Your task to perform on an android device: Go to wifi settings Image 0: 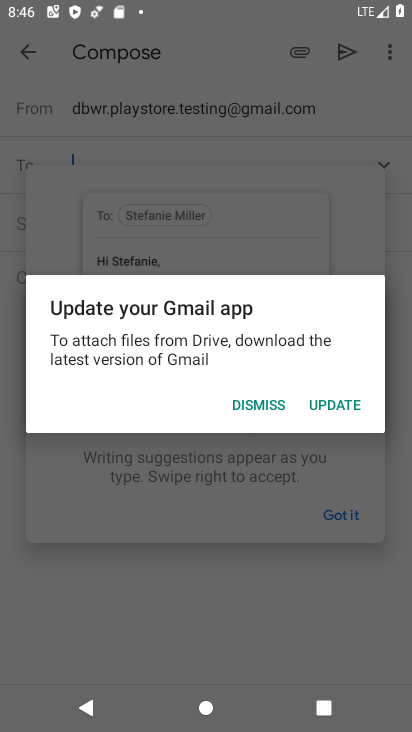
Step 0: press home button
Your task to perform on an android device: Go to wifi settings Image 1: 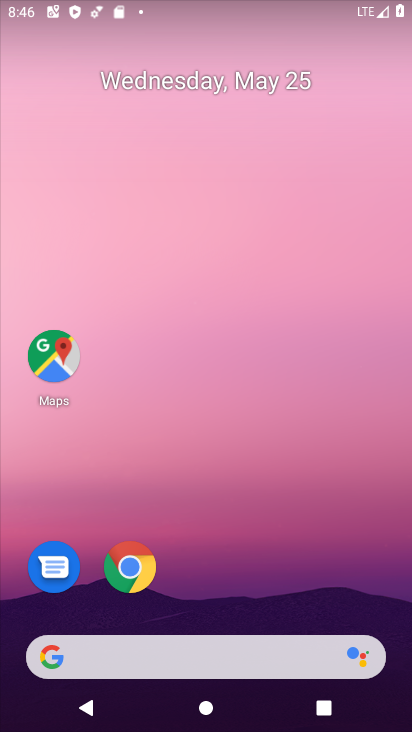
Step 1: drag from (288, 506) to (251, 29)
Your task to perform on an android device: Go to wifi settings Image 2: 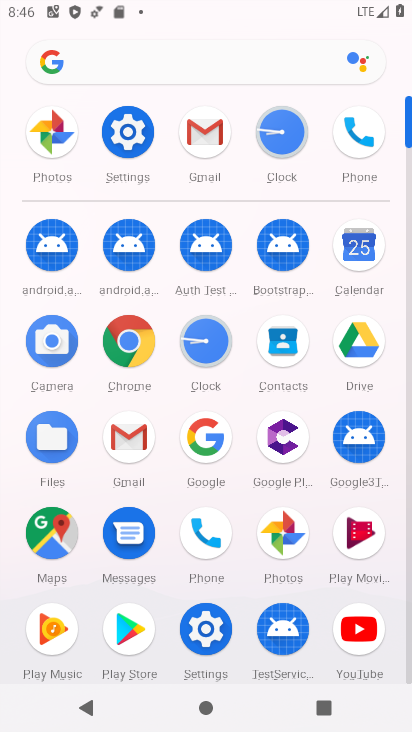
Step 2: click (143, 131)
Your task to perform on an android device: Go to wifi settings Image 3: 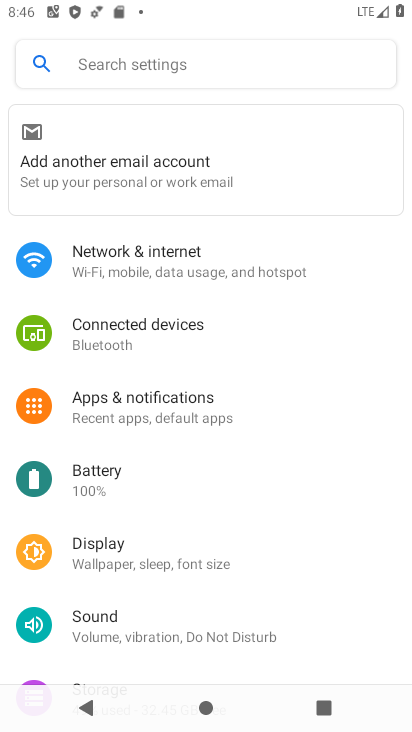
Step 3: click (127, 256)
Your task to perform on an android device: Go to wifi settings Image 4: 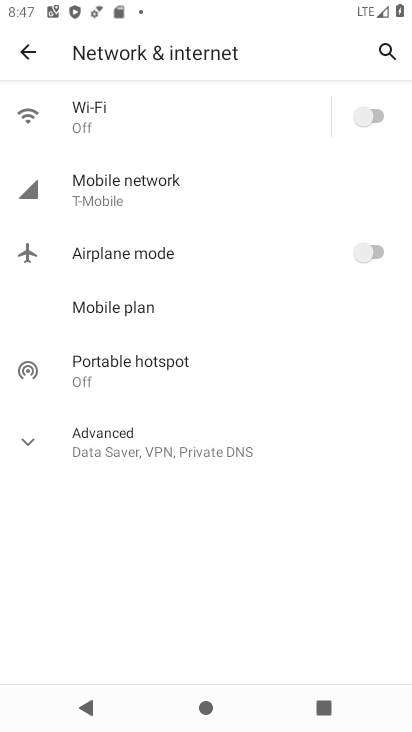
Step 4: click (165, 112)
Your task to perform on an android device: Go to wifi settings Image 5: 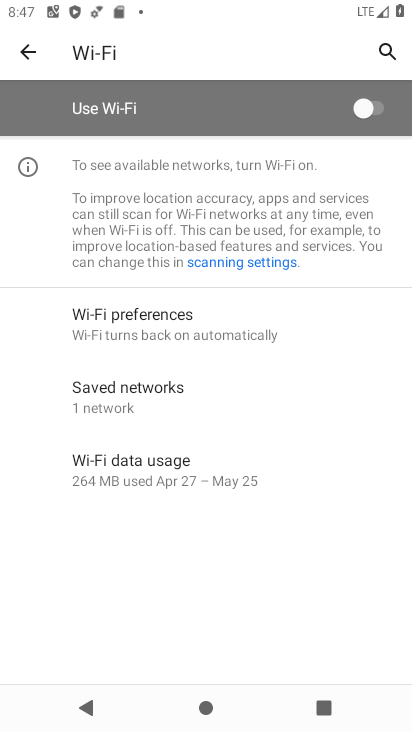
Step 5: click (373, 108)
Your task to perform on an android device: Go to wifi settings Image 6: 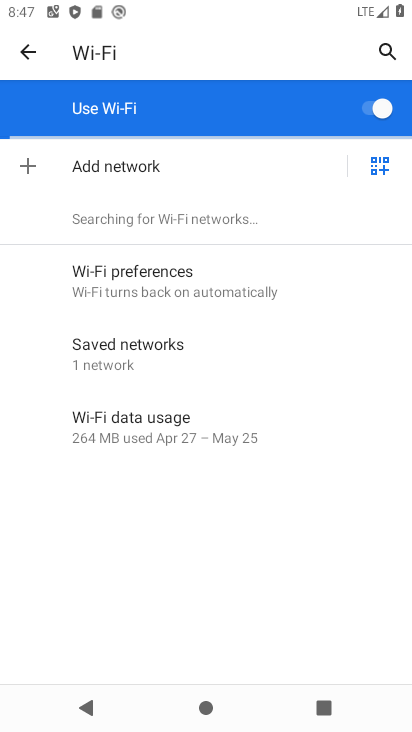
Step 6: task complete